Your task to perform on an android device: Open Yahoo.com Image 0: 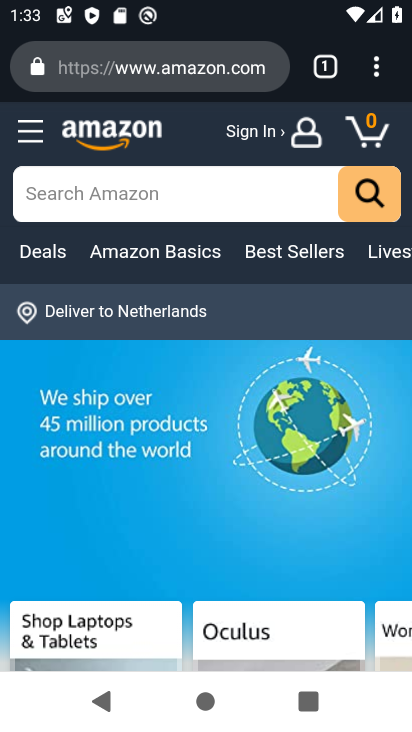
Step 0: press home button
Your task to perform on an android device: Open Yahoo.com Image 1: 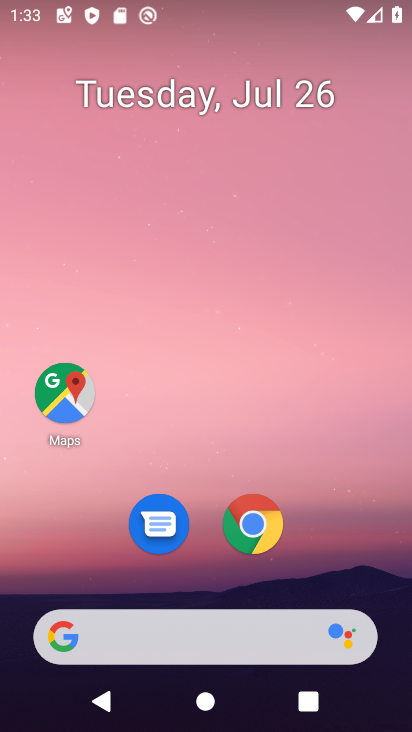
Step 1: click (228, 647)
Your task to perform on an android device: Open Yahoo.com Image 2: 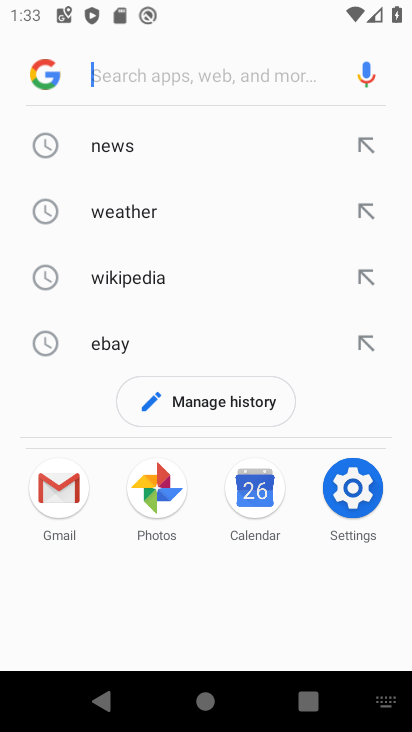
Step 2: type "yahoo.com"
Your task to perform on an android device: Open Yahoo.com Image 3: 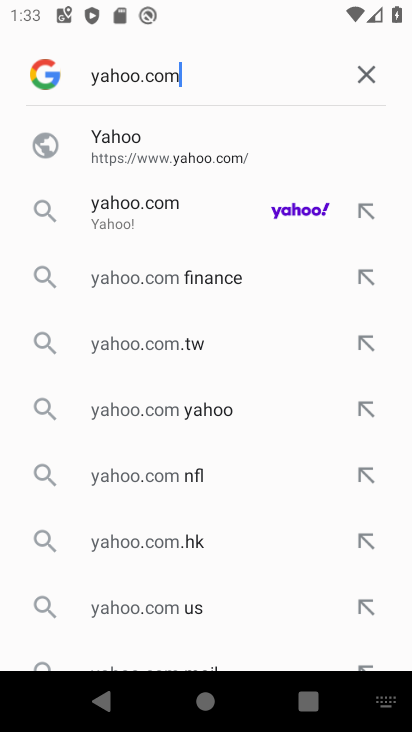
Step 3: click (301, 209)
Your task to perform on an android device: Open Yahoo.com Image 4: 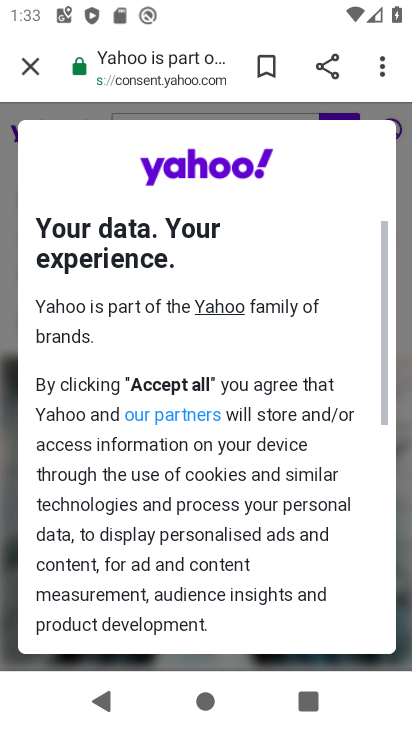
Step 4: drag from (258, 559) to (261, 141)
Your task to perform on an android device: Open Yahoo.com Image 5: 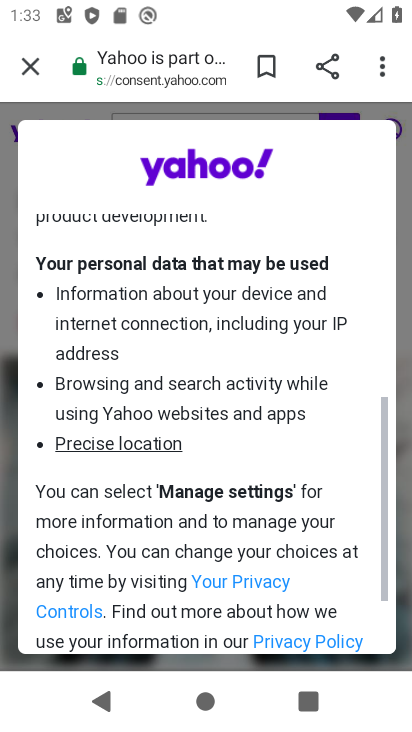
Step 5: drag from (223, 515) to (257, 107)
Your task to perform on an android device: Open Yahoo.com Image 6: 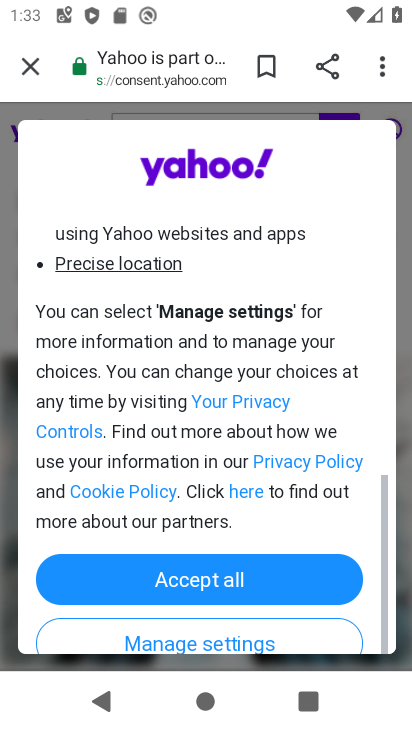
Step 6: click (247, 581)
Your task to perform on an android device: Open Yahoo.com Image 7: 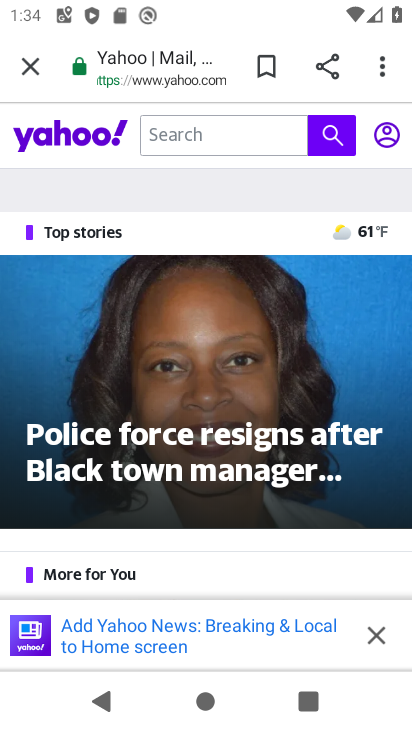
Step 7: drag from (300, 482) to (320, 275)
Your task to perform on an android device: Open Yahoo.com Image 8: 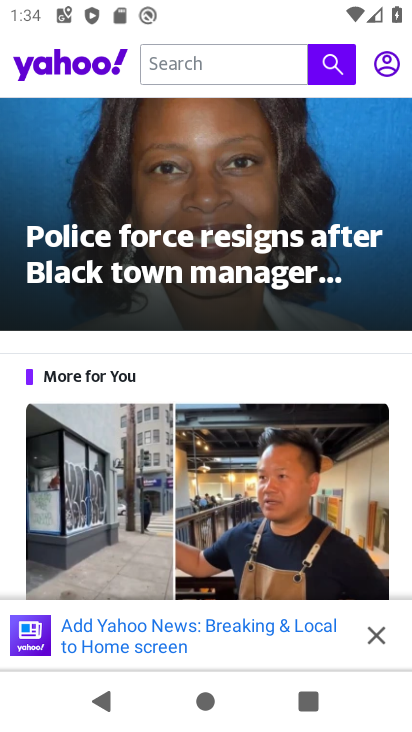
Step 8: click (306, 242)
Your task to perform on an android device: Open Yahoo.com Image 9: 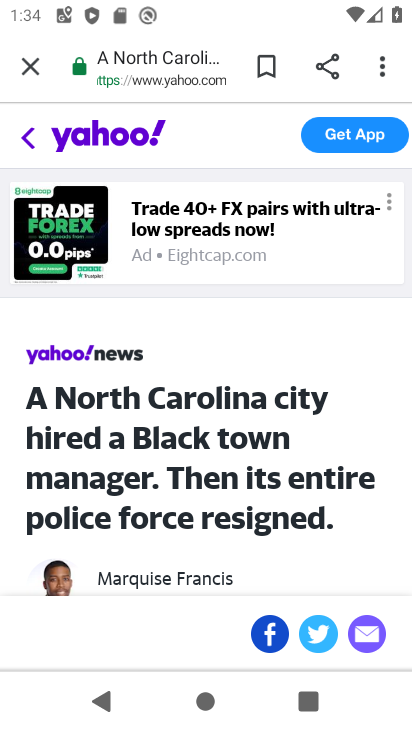
Step 9: task complete